Your task to perform on an android device: Go to calendar. Show me events next week Image 0: 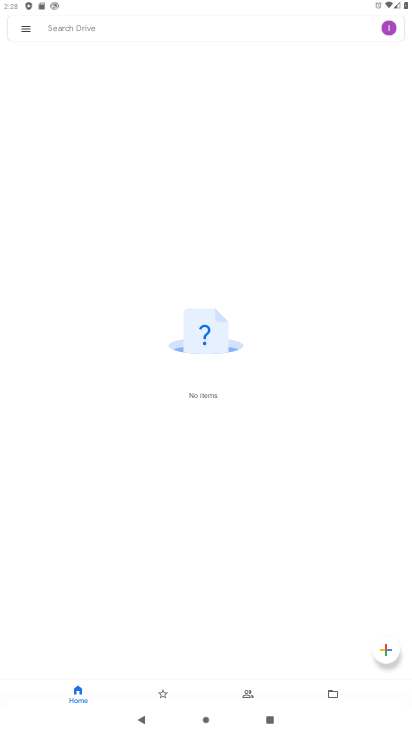
Step 0: press home button
Your task to perform on an android device: Go to calendar. Show me events next week Image 1: 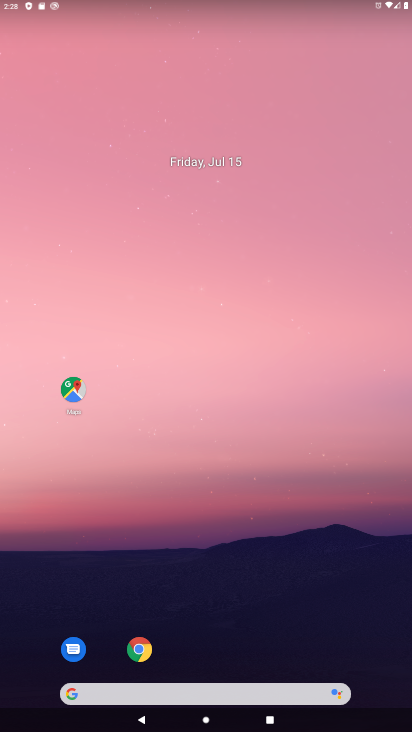
Step 1: click (189, 164)
Your task to perform on an android device: Go to calendar. Show me events next week Image 2: 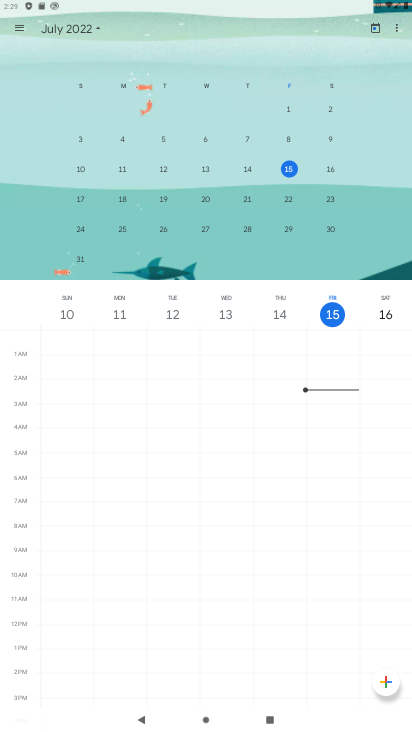
Step 2: click (286, 205)
Your task to perform on an android device: Go to calendar. Show me events next week Image 3: 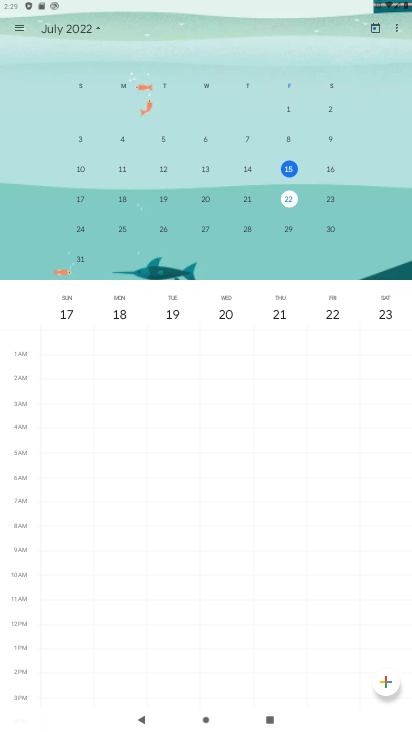
Step 3: task complete